Your task to perform on an android device: Search for sushi restaurants on Maps Image 0: 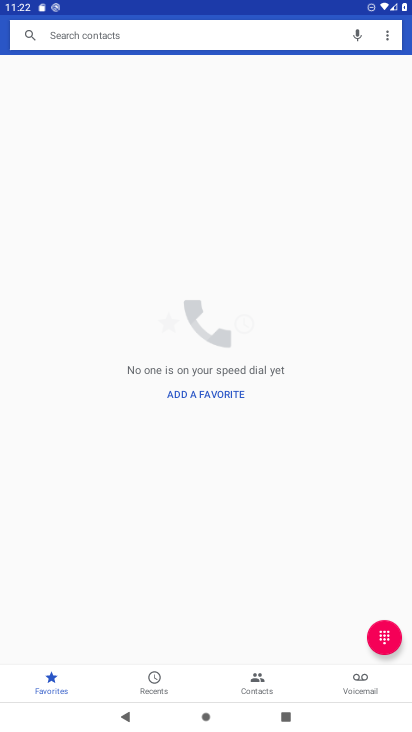
Step 0: press home button
Your task to perform on an android device: Search for sushi restaurants on Maps Image 1: 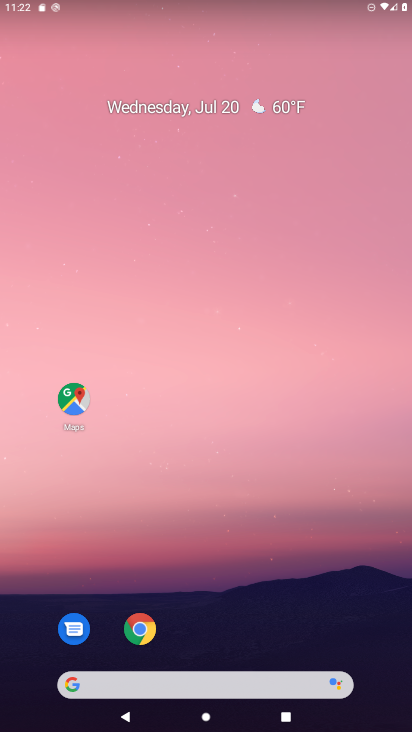
Step 1: click (86, 408)
Your task to perform on an android device: Search for sushi restaurants on Maps Image 2: 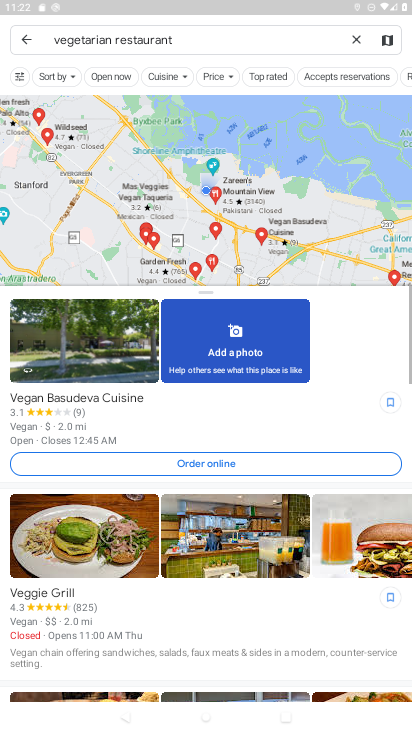
Step 2: click (348, 30)
Your task to perform on an android device: Search for sushi restaurants on Maps Image 3: 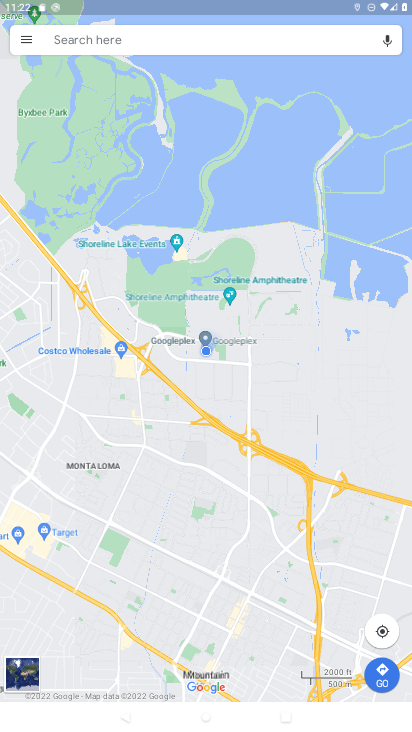
Step 3: click (209, 38)
Your task to perform on an android device: Search for sushi restaurants on Maps Image 4: 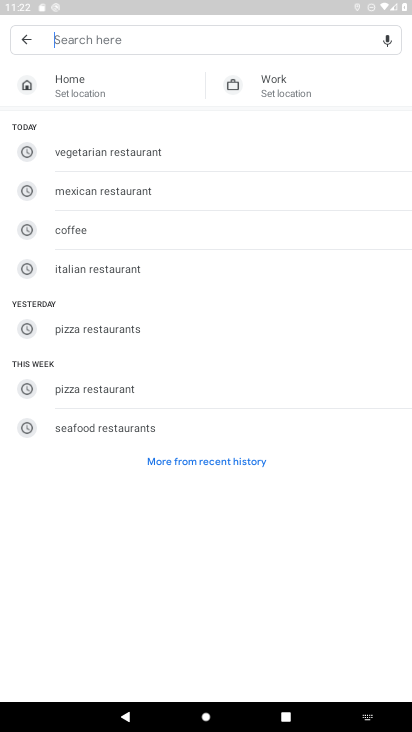
Step 4: type "sushi restaurants"
Your task to perform on an android device: Search for sushi restaurants on Maps Image 5: 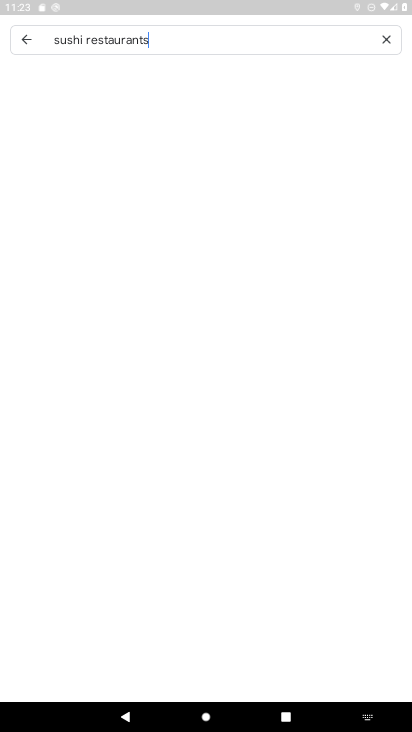
Step 5: type ""
Your task to perform on an android device: Search for sushi restaurants on Maps Image 6: 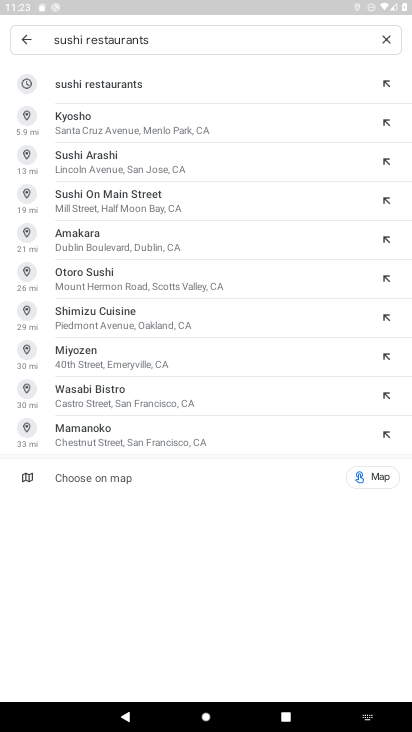
Step 6: click (119, 87)
Your task to perform on an android device: Search for sushi restaurants on Maps Image 7: 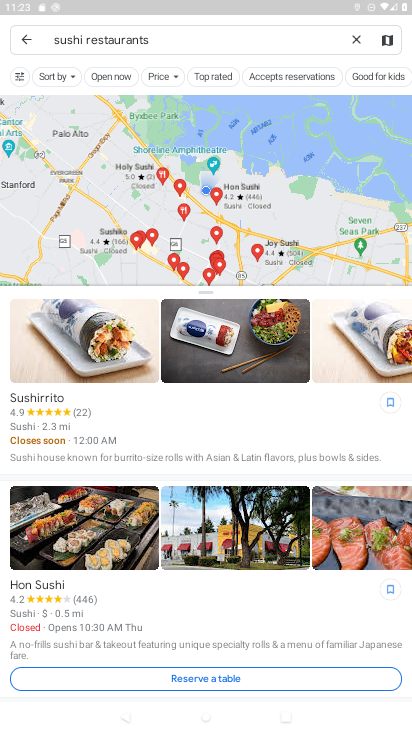
Step 7: task complete